Your task to perform on an android device: turn on the 12-hour format for clock Image 0: 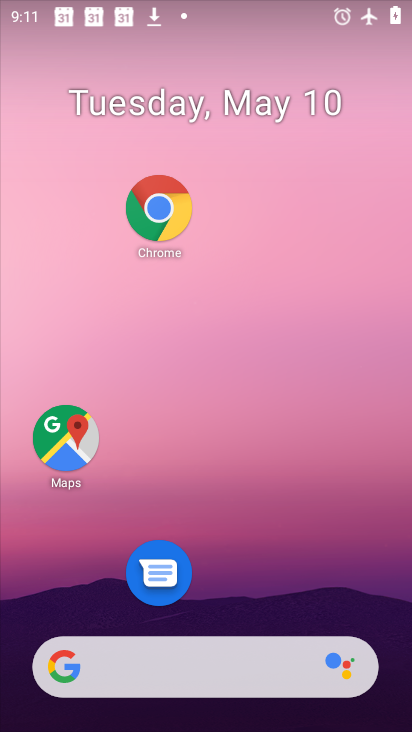
Step 0: drag from (262, 671) to (231, 221)
Your task to perform on an android device: turn on the 12-hour format for clock Image 1: 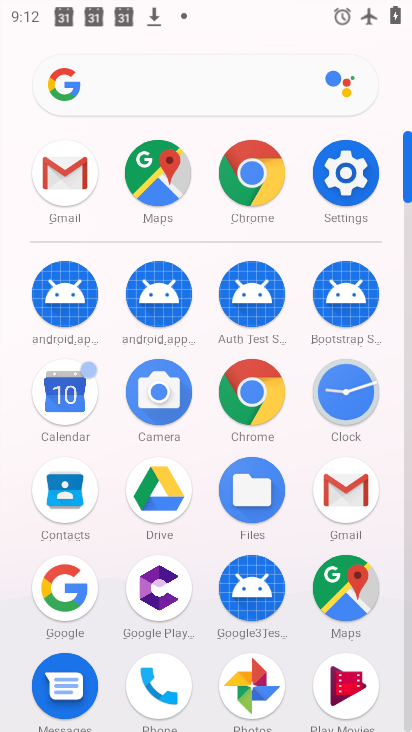
Step 1: click (361, 397)
Your task to perform on an android device: turn on the 12-hour format for clock Image 2: 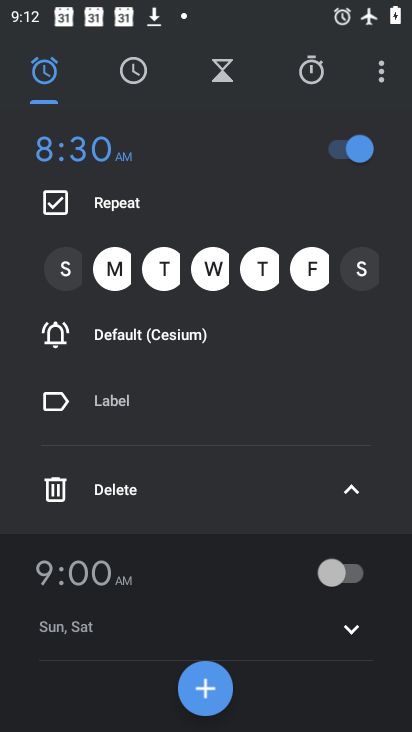
Step 2: click (367, 81)
Your task to perform on an android device: turn on the 12-hour format for clock Image 3: 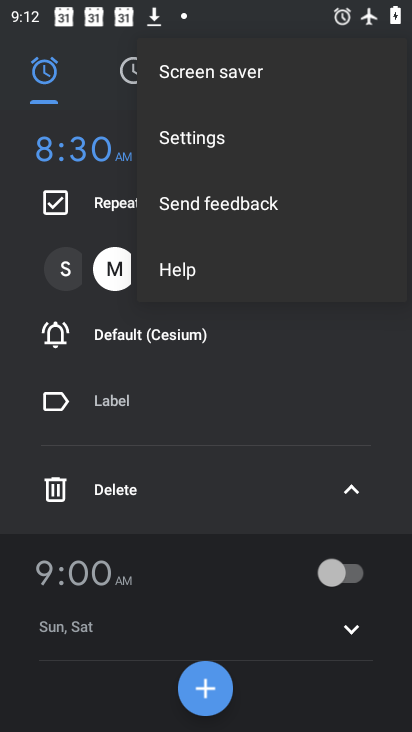
Step 3: click (231, 151)
Your task to perform on an android device: turn on the 12-hour format for clock Image 4: 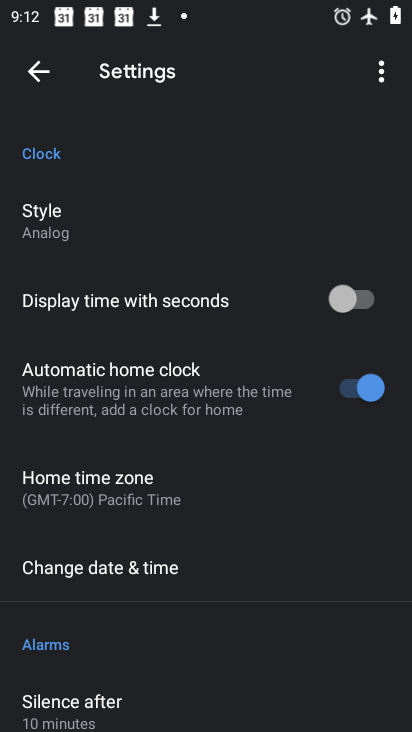
Step 4: click (192, 571)
Your task to perform on an android device: turn on the 12-hour format for clock Image 5: 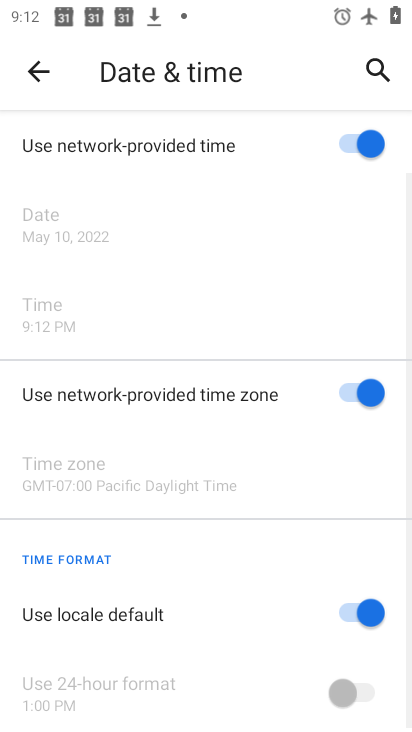
Step 5: drag from (249, 589) to (242, 398)
Your task to perform on an android device: turn on the 12-hour format for clock Image 6: 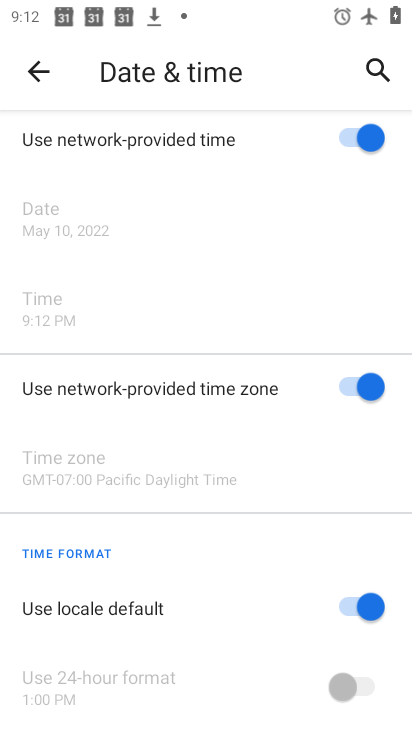
Step 6: click (369, 604)
Your task to perform on an android device: turn on the 12-hour format for clock Image 7: 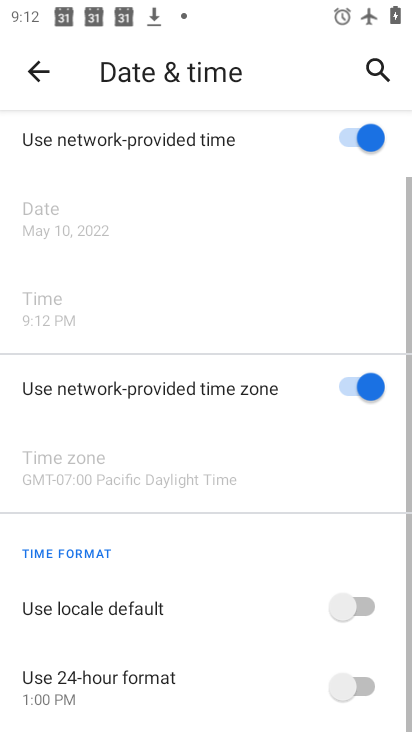
Step 7: click (354, 681)
Your task to perform on an android device: turn on the 12-hour format for clock Image 8: 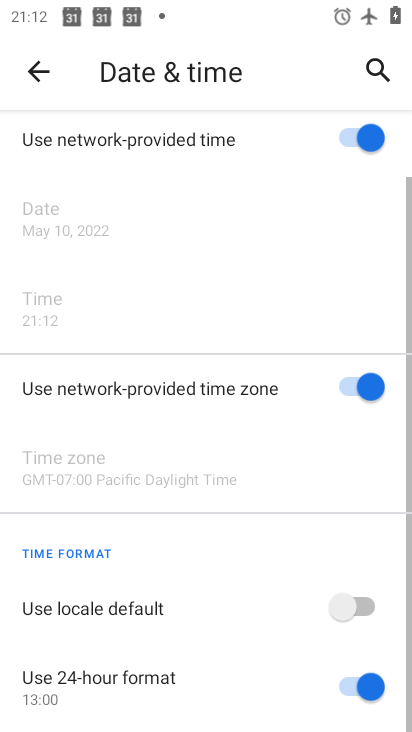
Step 8: click (354, 681)
Your task to perform on an android device: turn on the 12-hour format for clock Image 9: 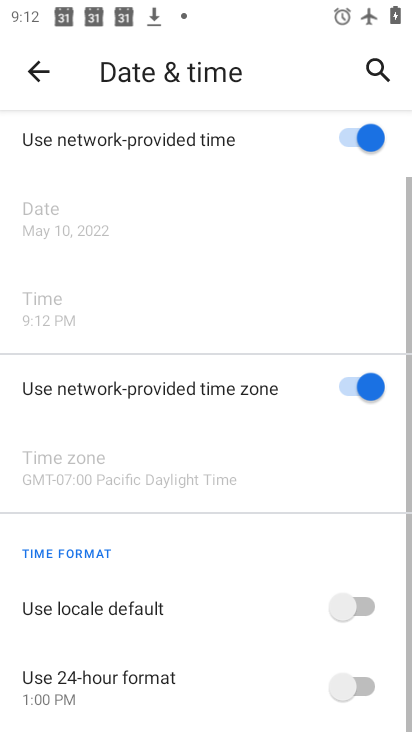
Step 9: task complete